Your task to perform on an android device: turn on data saver in the chrome app Image 0: 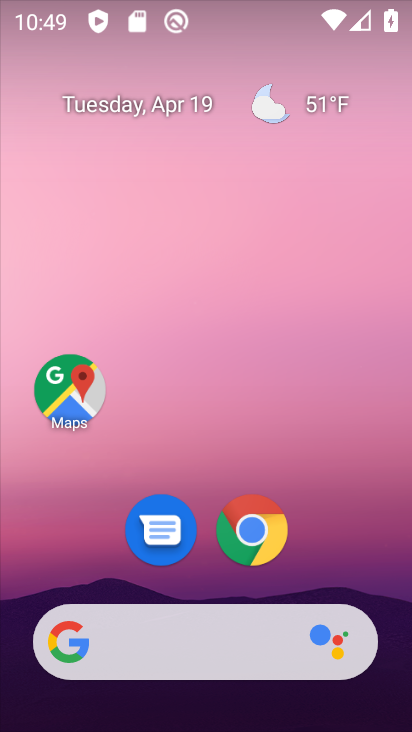
Step 0: click (273, 518)
Your task to perform on an android device: turn on data saver in the chrome app Image 1: 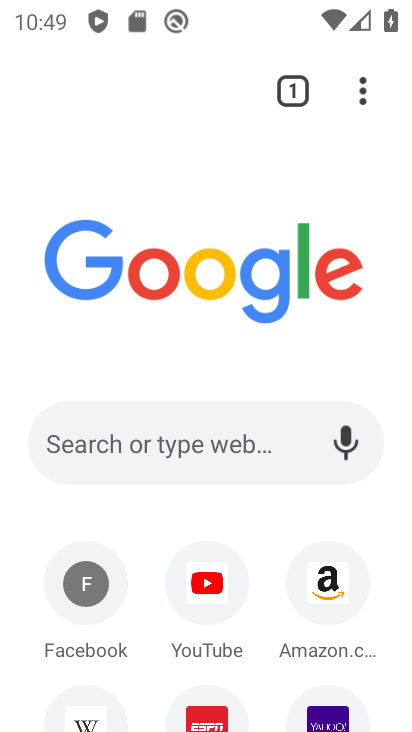
Step 1: click (364, 84)
Your task to perform on an android device: turn on data saver in the chrome app Image 2: 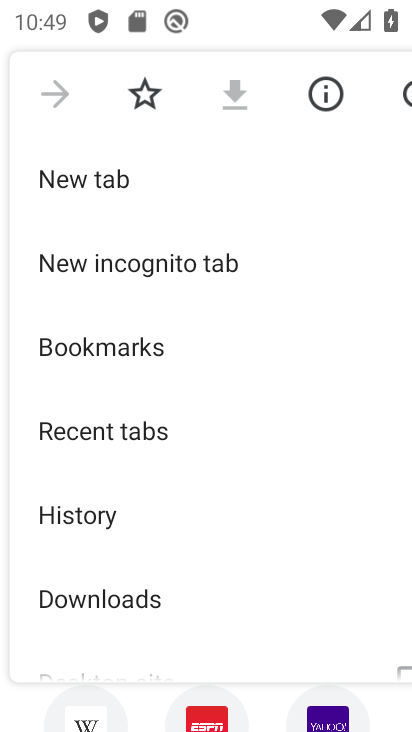
Step 2: drag from (196, 547) to (229, 134)
Your task to perform on an android device: turn on data saver in the chrome app Image 3: 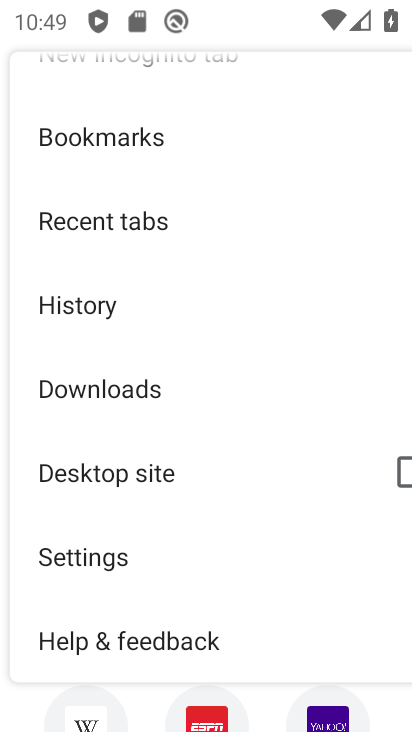
Step 3: click (135, 547)
Your task to perform on an android device: turn on data saver in the chrome app Image 4: 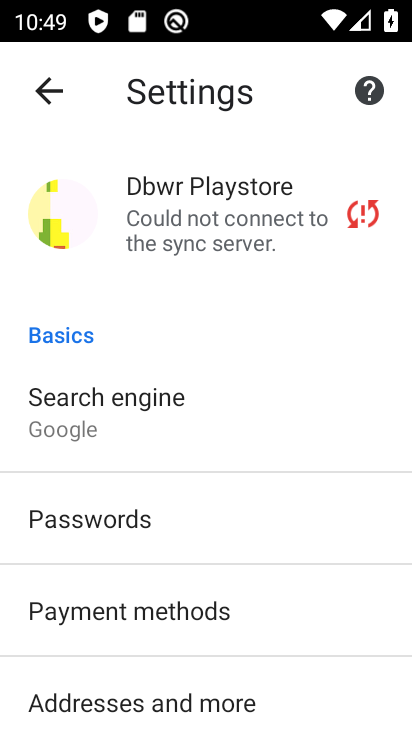
Step 4: drag from (203, 655) to (281, 224)
Your task to perform on an android device: turn on data saver in the chrome app Image 5: 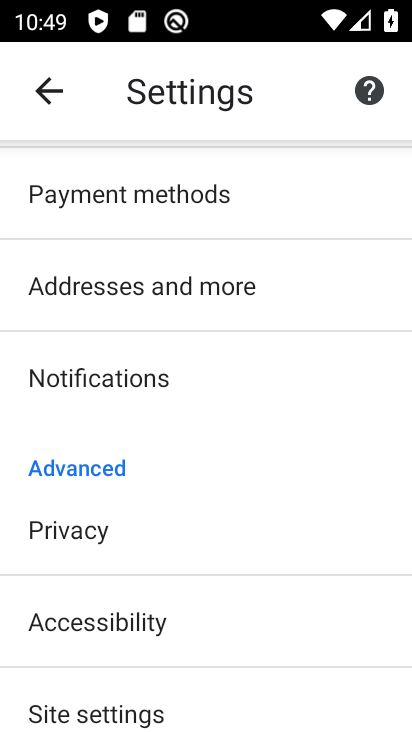
Step 5: drag from (224, 642) to (225, 233)
Your task to perform on an android device: turn on data saver in the chrome app Image 6: 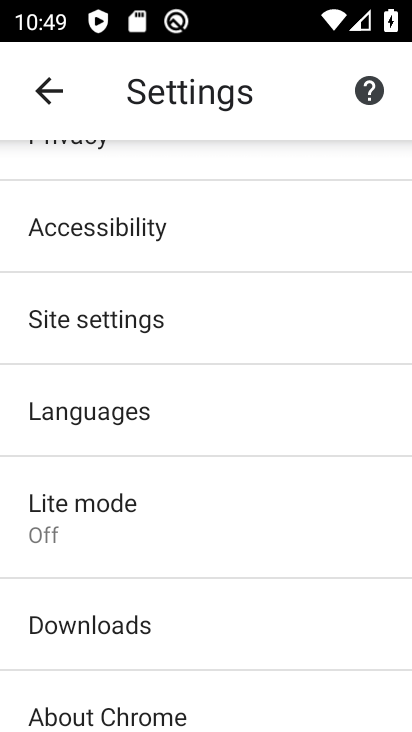
Step 6: click (152, 528)
Your task to perform on an android device: turn on data saver in the chrome app Image 7: 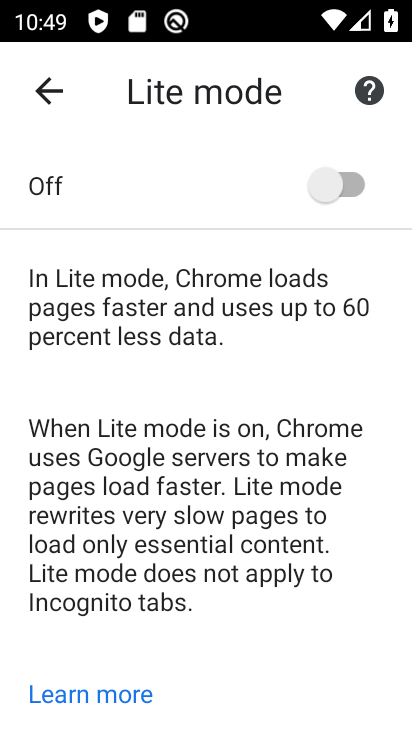
Step 7: click (349, 177)
Your task to perform on an android device: turn on data saver in the chrome app Image 8: 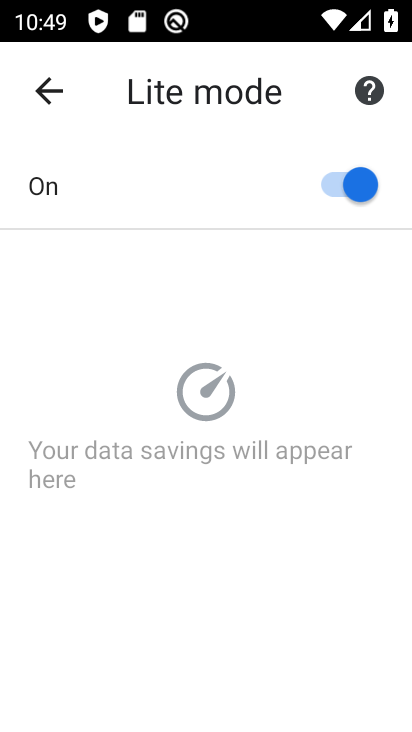
Step 8: task complete